Your task to perform on an android device: Open Reddit.com Image 0: 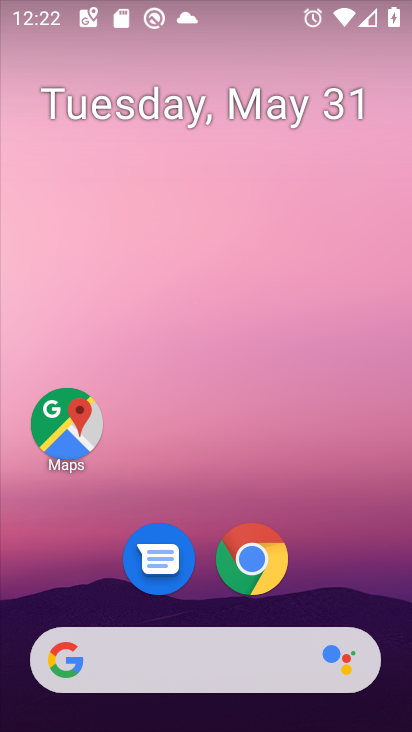
Step 0: click (271, 566)
Your task to perform on an android device: Open Reddit.com Image 1: 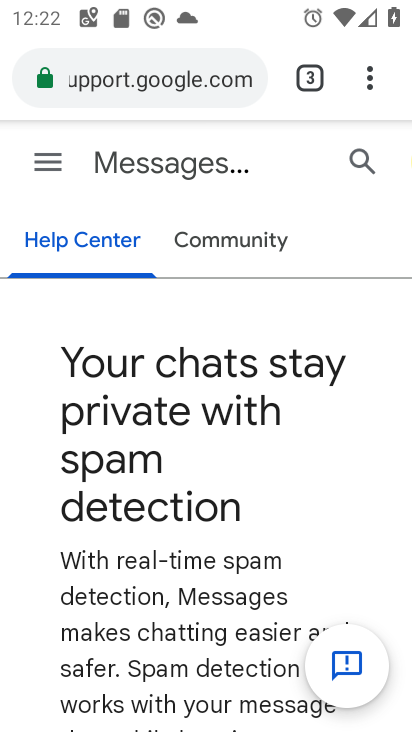
Step 1: click (161, 90)
Your task to perform on an android device: Open Reddit.com Image 2: 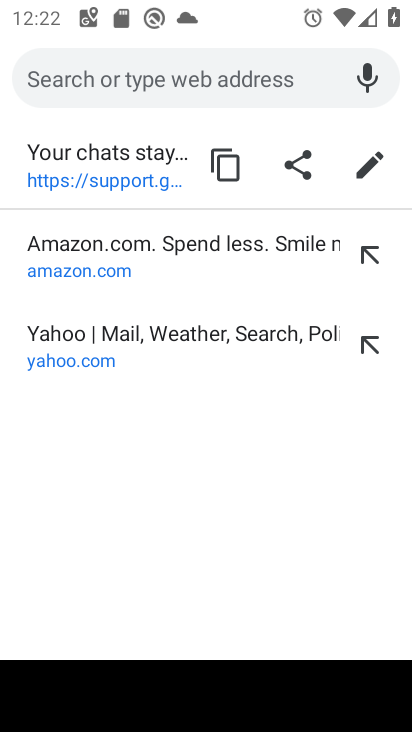
Step 2: type "reddit.com"
Your task to perform on an android device: Open Reddit.com Image 3: 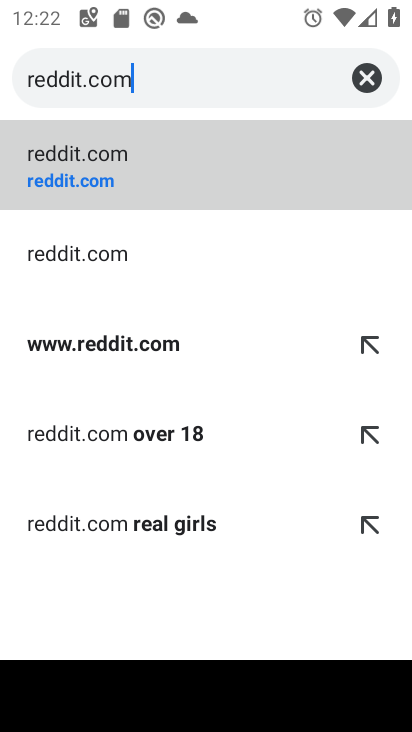
Step 3: click (69, 183)
Your task to perform on an android device: Open Reddit.com Image 4: 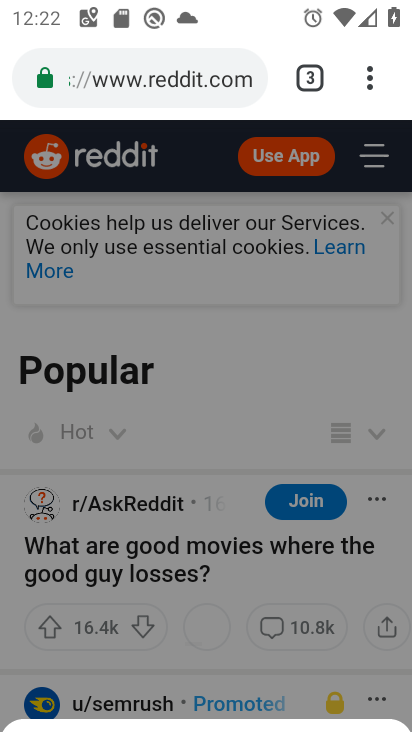
Step 4: task complete